Your task to perform on an android device: Go to settings Image 0: 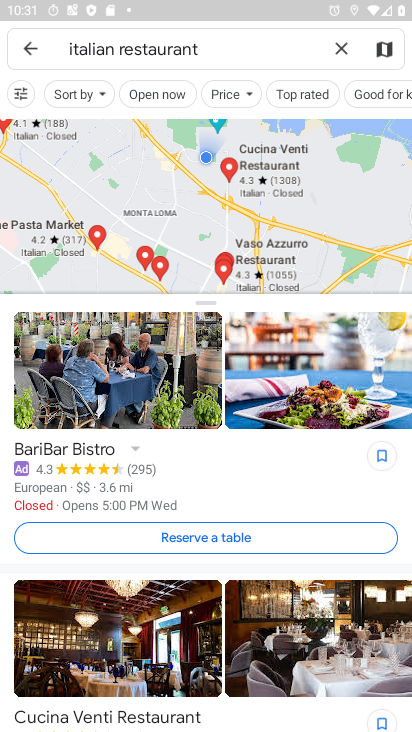
Step 0: press home button
Your task to perform on an android device: Go to settings Image 1: 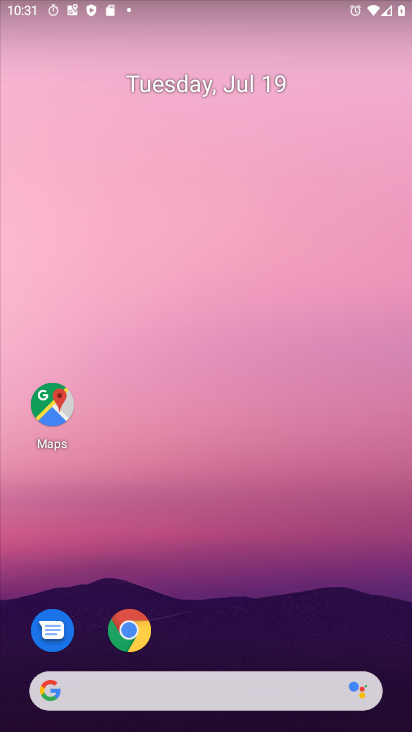
Step 1: drag from (261, 593) to (250, 48)
Your task to perform on an android device: Go to settings Image 2: 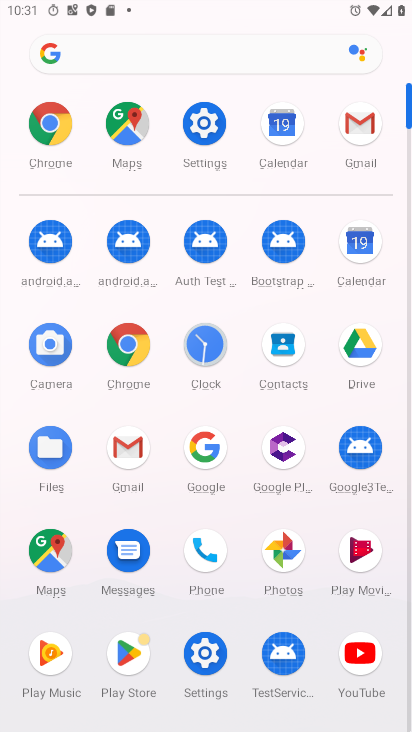
Step 2: click (199, 134)
Your task to perform on an android device: Go to settings Image 3: 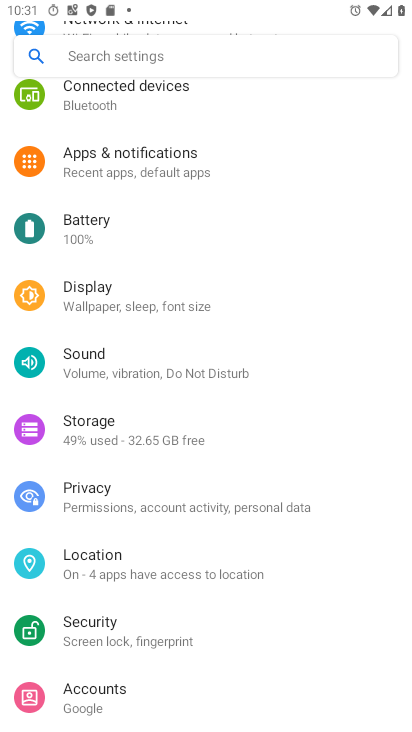
Step 3: task complete